Your task to perform on an android device: check out phone information Image 0: 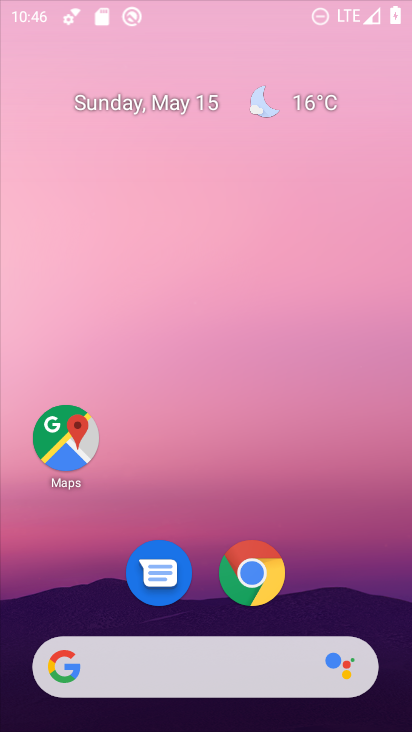
Step 0: click (327, 659)
Your task to perform on an android device: check out phone information Image 1: 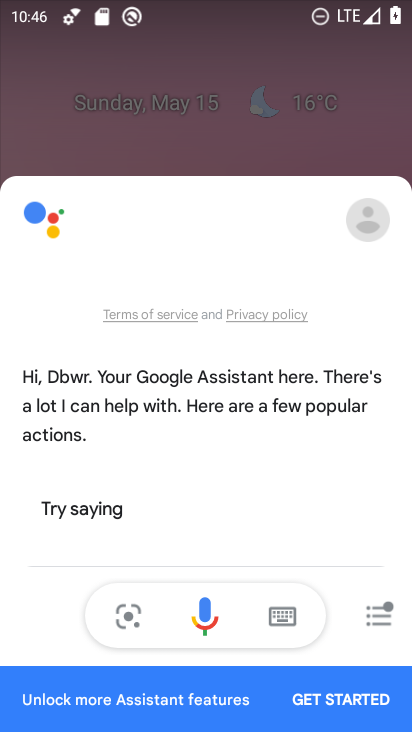
Step 1: click (140, 131)
Your task to perform on an android device: check out phone information Image 2: 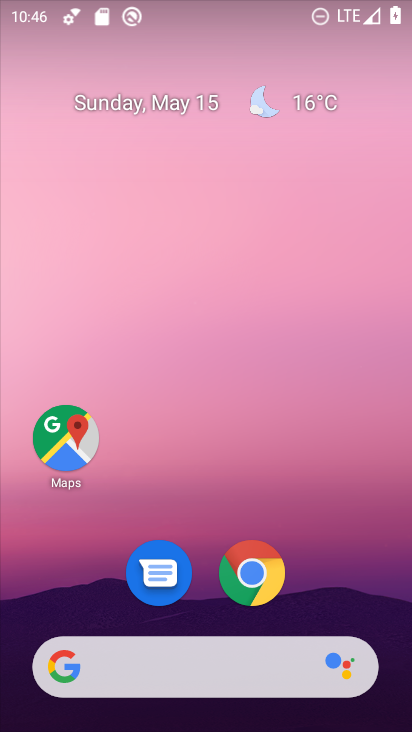
Step 2: drag from (374, 634) to (363, 202)
Your task to perform on an android device: check out phone information Image 3: 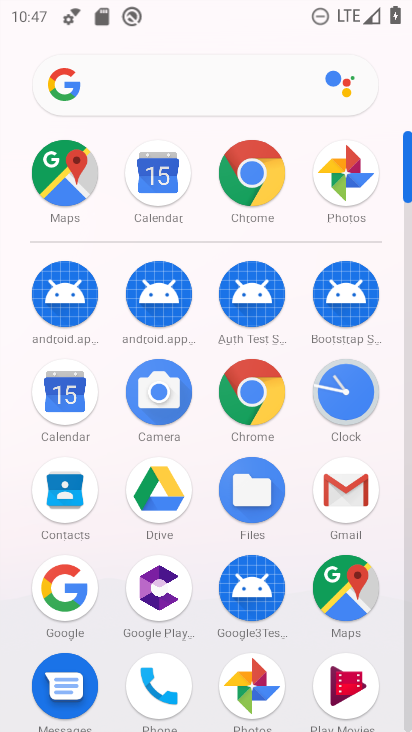
Step 3: click (191, 685)
Your task to perform on an android device: check out phone information Image 4: 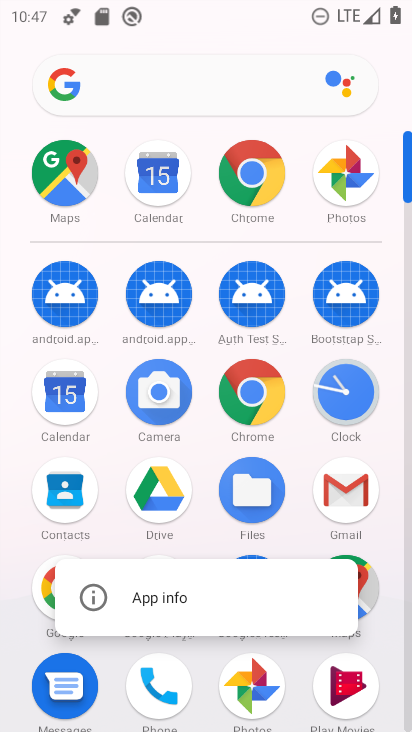
Step 4: click (183, 609)
Your task to perform on an android device: check out phone information Image 5: 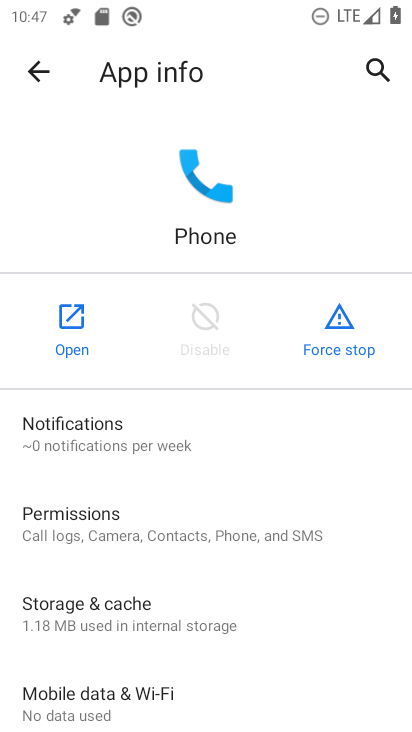
Step 5: task complete